Your task to perform on an android device: set the timer Image 0: 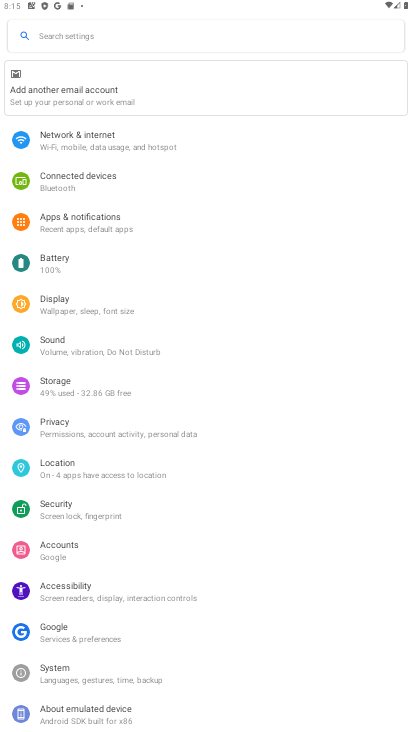
Step 0: press home button
Your task to perform on an android device: set the timer Image 1: 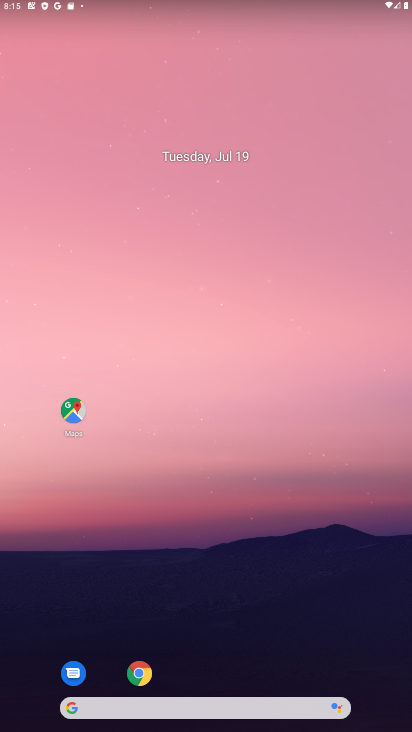
Step 1: drag from (258, 661) to (242, 307)
Your task to perform on an android device: set the timer Image 2: 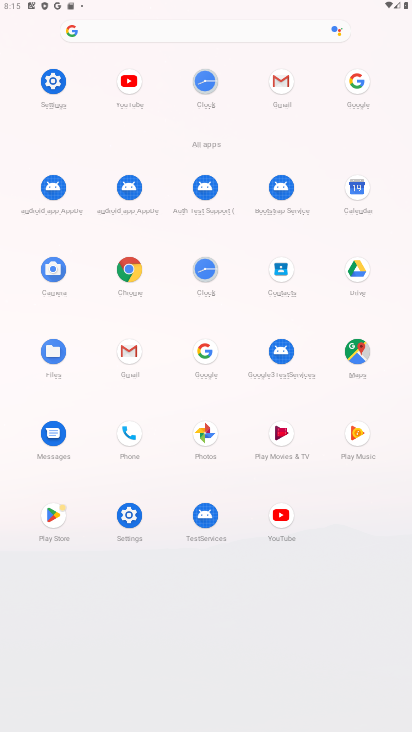
Step 2: click (207, 108)
Your task to perform on an android device: set the timer Image 3: 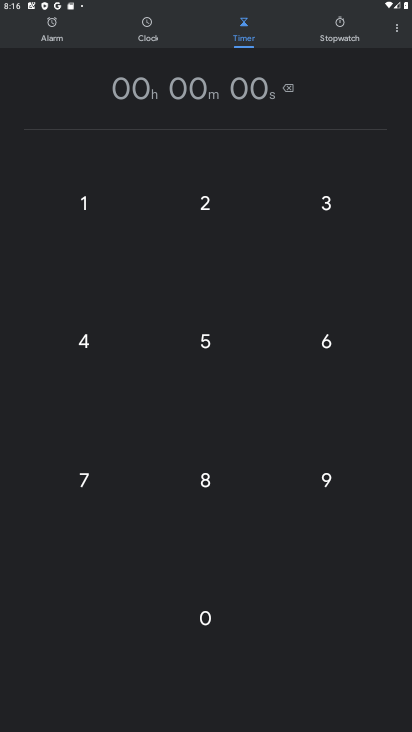
Step 3: task complete